Your task to perform on an android device: Open Google Chrome and open the bookmarks view Image 0: 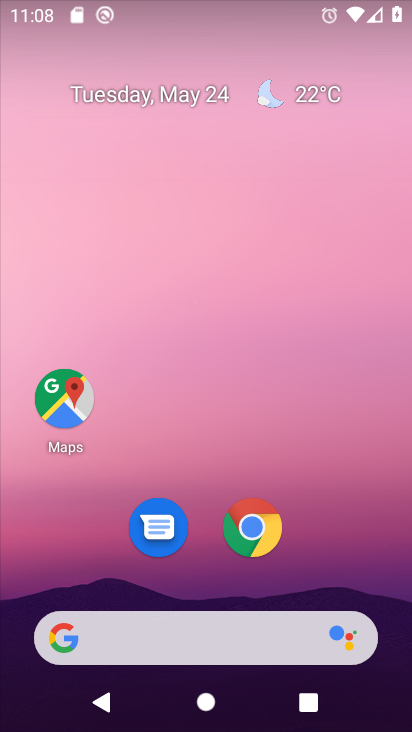
Step 0: press home button
Your task to perform on an android device: Open Google Chrome and open the bookmarks view Image 1: 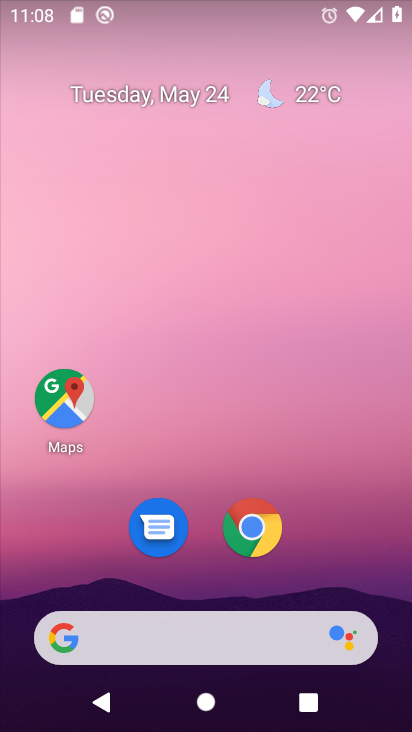
Step 1: click (260, 549)
Your task to perform on an android device: Open Google Chrome and open the bookmarks view Image 2: 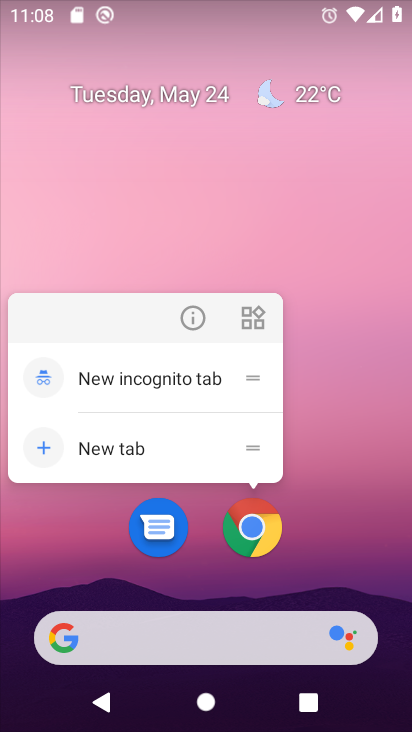
Step 2: click (252, 531)
Your task to perform on an android device: Open Google Chrome and open the bookmarks view Image 3: 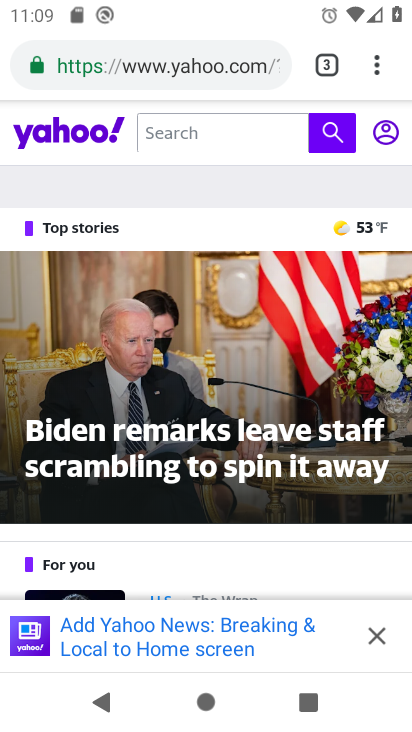
Step 3: task complete